Your task to perform on an android device: Show the shopping cart on ebay. Add "logitech g pro" to the cart on ebay, then select checkout. Image 0: 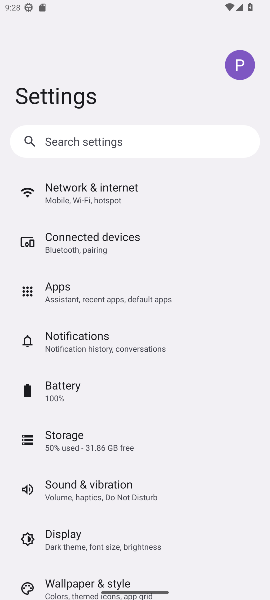
Step 0: press home button
Your task to perform on an android device: Show the shopping cart on ebay. Add "logitech g pro" to the cart on ebay, then select checkout. Image 1: 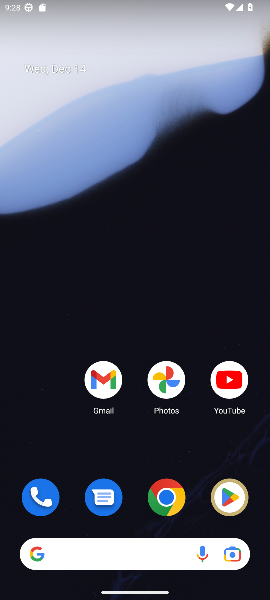
Step 1: click (162, 504)
Your task to perform on an android device: Show the shopping cart on ebay. Add "logitech g pro" to the cart on ebay, then select checkout. Image 2: 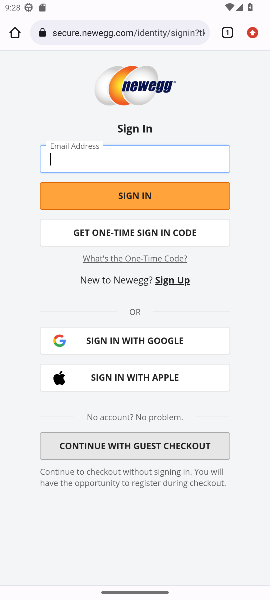
Step 2: click (90, 36)
Your task to perform on an android device: Show the shopping cart on ebay. Add "logitech g pro" to the cart on ebay, then select checkout. Image 3: 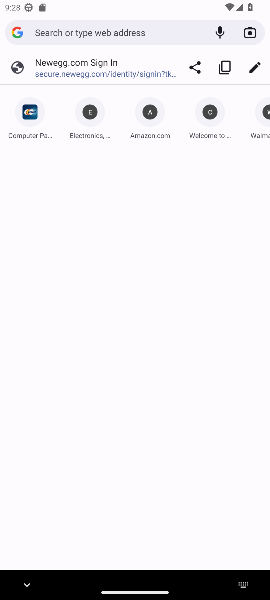
Step 3: type "ebay"
Your task to perform on an android device: Show the shopping cart on ebay. Add "logitech g pro" to the cart on ebay, then select checkout. Image 4: 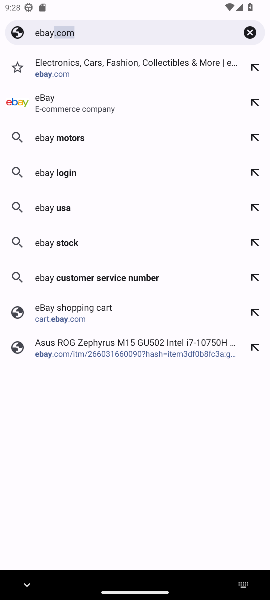
Step 4: click (79, 68)
Your task to perform on an android device: Show the shopping cart on ebay. Add "logitech g pro" to the cart on ebay, then select checkout. Image 5: 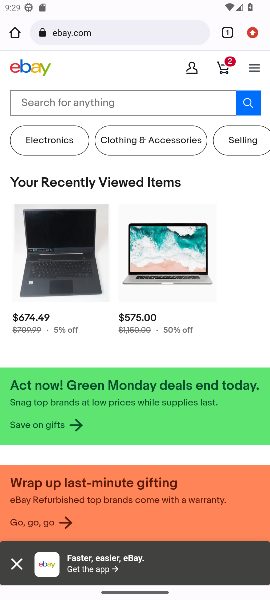
Step 5: click (221, 66)
Your task to perform on an android device: Show the shopping cart on ebay. Add "logitech g pro" to the cart on ebay, then select checkout. Image 6: 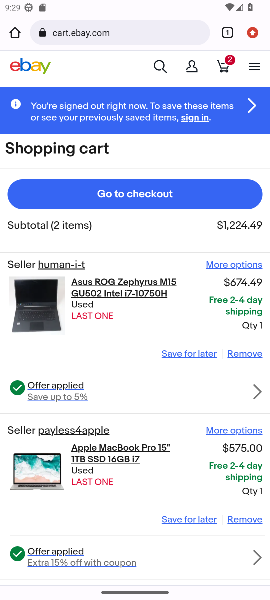
Step 6: click (157, 64)
Your task to perform on an android device: Show the shopping cart on ebay. Add "logitech g pro" to the cart on ebay, then select checkout. Image 7: 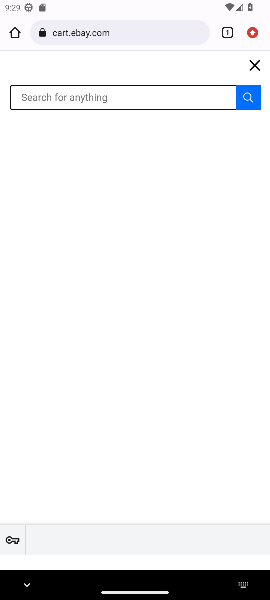
Step 7: click (142, 100)
Your task to perform on an android device: Show the shopping cart on ebay. Add "logitech g pro" to the cart on ebay, then select checkout. Image 8: 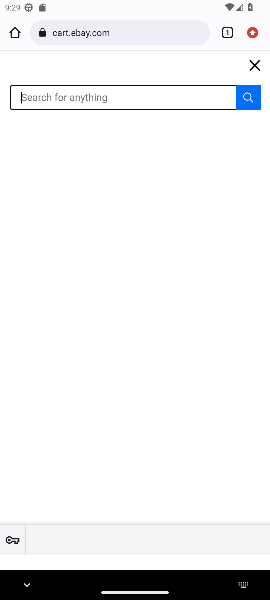
Step 8: click (142, 100)
Your task to perform on an android device: Show the shopping cart on ebay. Add "logitech g pro" to the cart on ebay, then select checkout. Image 9: 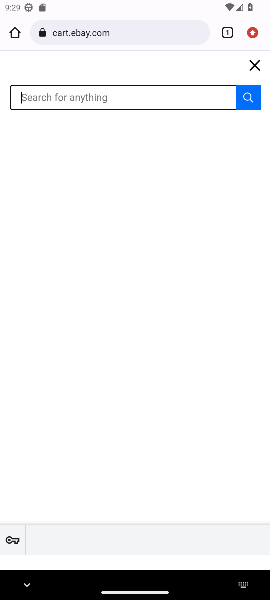
Step 9: click (142, 100)
Your task to perform on an android device: Show the shopping cart on ebay. Add "logitech g pro" to the cart on ebay, then select checkout. Image 10: 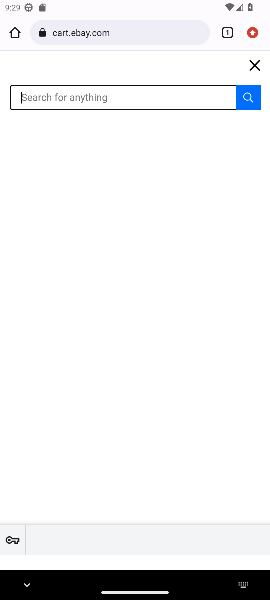
Step 10: type "logitech g pro"
Your task to perform on an android device: Show the shopping cart on ebay. Add "logitech g pro" to the cart on ebay, then select checkout. Image 11: 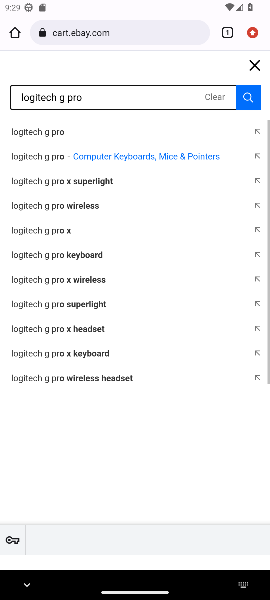
Step 11: click (250, 97)
Your task to perform on an android device: Show the shopping cart on ebay. Add "logitech g pro" to the cart on ebay, then select checkout. Image 12: 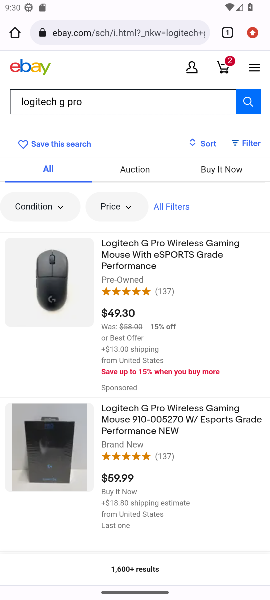
Step 12: click (141, 260)
Your task to perform on an android device: Show the shopping cart on ebay. Add "logitech g pro" to the cart on ebay, then select checkout. Image 13: 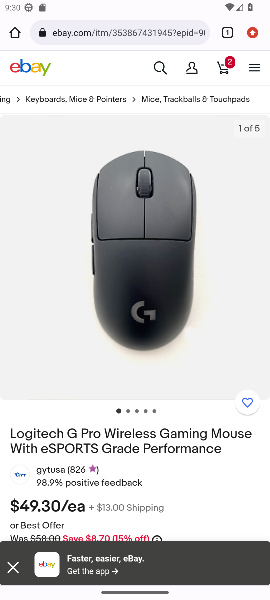
Step 13: drag from (182, 466) to (173, 180)
Your task to perform on an android device: Show the shopping cart on ebay. Add "logitech g pro" to the cart on ebay, then select checkout. Image 14: 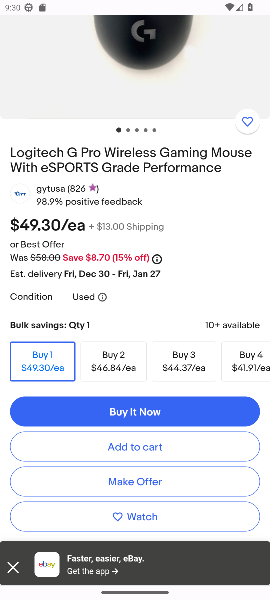
Step 14: click (113, 444)
Your task to perform on an android device: Show the shopping cart on ebay. Add "logitech g pro" to the cart on ebay, then select checkout. Image 15: 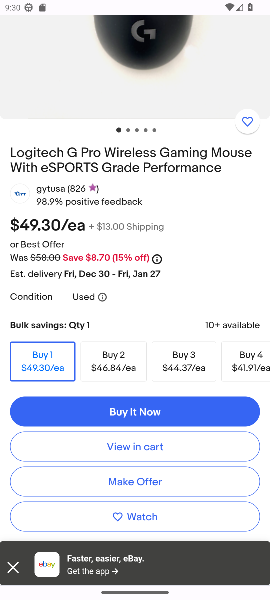
Step 15: click (113, 449)
Your task to perform on an android device: Show the shopping cart on ebay. Add "logitech g pro" to the cart on ebay, then select checkout. Image 16: 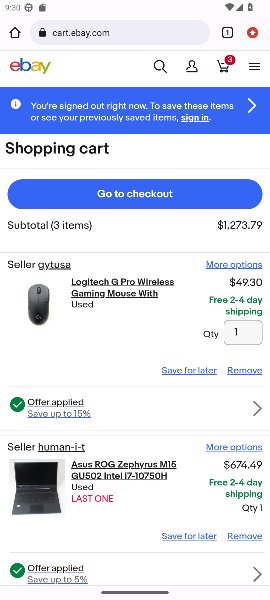
Step 16: click (159, 65)
Your task to perform on an android device: Show the shopping cart on ebay. Add "logitech g pro" to the cart on ebay, then select checkout. Image 17: 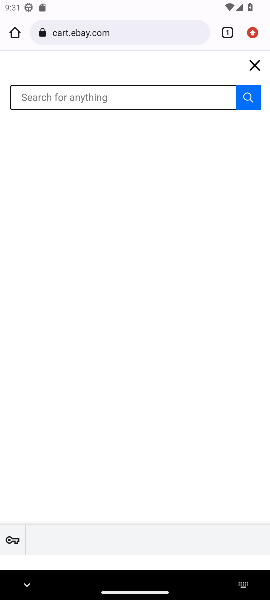
Step 17: type "logitech g pro"
Your task to perform on an android device: Show the shopping cart on ebay. Add "logitech g pro" to the cart on ebay, then select checkout. Image 18: 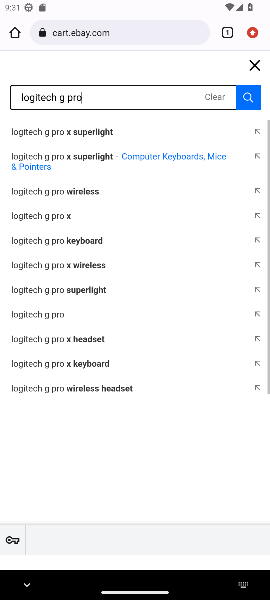
Step 18: press enter
Your task to perform on an android device: Show the shopping cart on ebay. Add "logitech g pro" to the cart on ebay, then select checkout. Image 19: 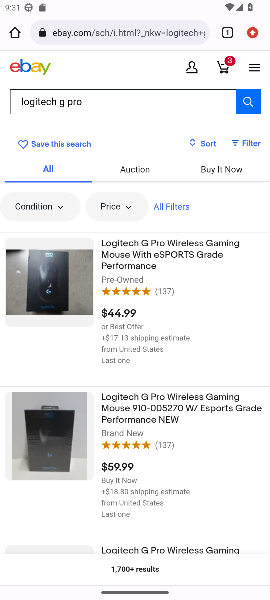
Step 19: click (137, 252)
Your task to perform on an android device: Show the shopping cart on ebay. Add "logitech g pro" to the cart on ebay, then select checkout. Image 20: 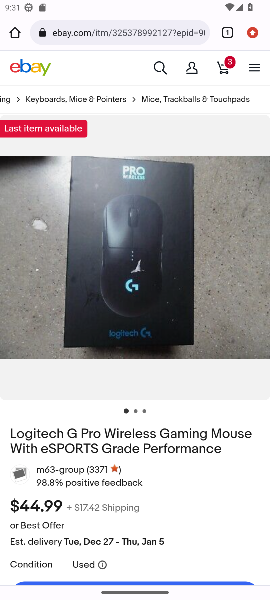
Step 20: drag from (150, 445) to (174, 95)
Your task to perform on an android device: Show the shopping cart on ebay. Add "logitech g pro" to the cart on ebay, then select checkout. Image 21: 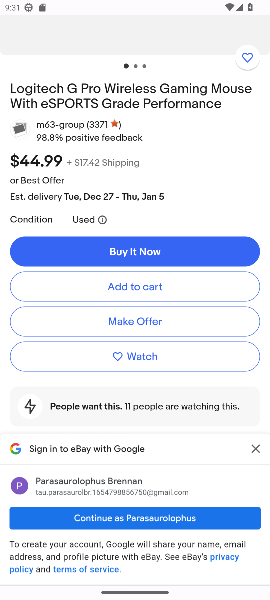
Step 21: click (110, 283)
Your task to perform on an android device: Show the shopping cart on ebay. Add "logitech g pro" to the cart on ebay, then select checkout. Image 22: 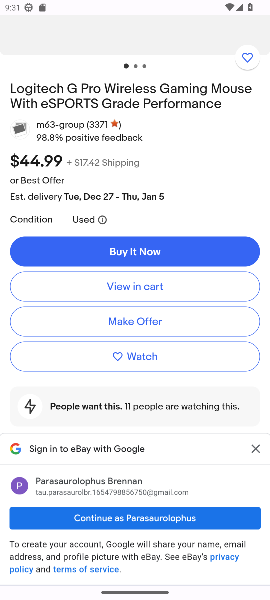
Step 22: click (108, 292)
Your task to perform on an android device: Show the shopping cart on ebay. Add "logitech g pro" to the cart on ebay, then select checkout. Image 23: 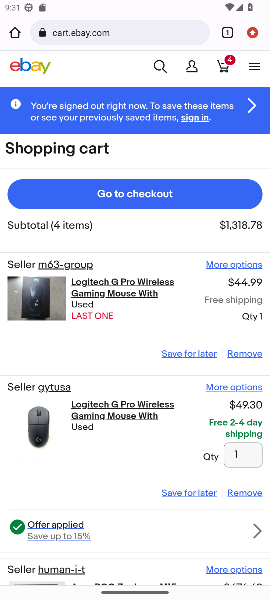
Step 23: click (177, 200)
Your task to perform on an android device: Show the shopping cart on ebay. Add "logitech g pro" to the cart on ebay, then select checkout. Image 24: 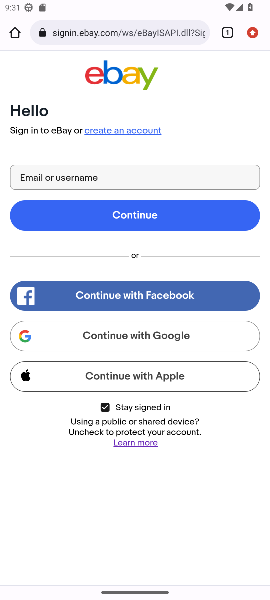
Step 24: task complete